Your task to perform on an android device: toggle notifications settings in the gmail app Image 0: 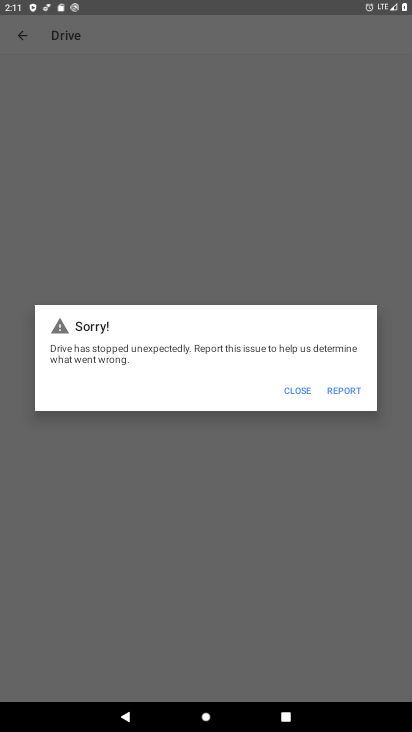
Step 0: press home button
Your task to perform on an android device: toggle notifications settings in the gmail app Image 1: 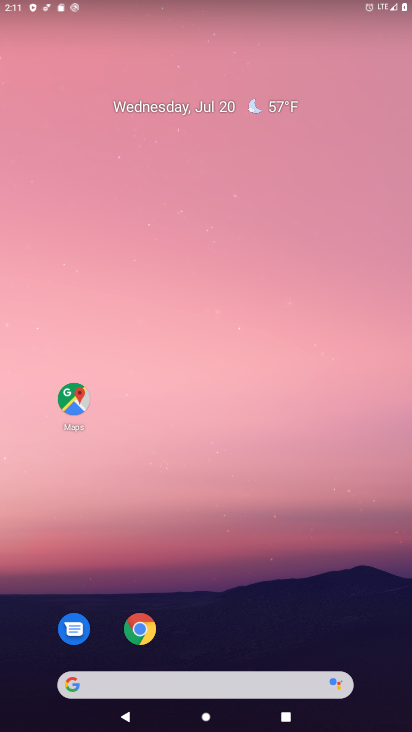
Step 1: drag from (388, 664) to (370, 76)
Your task to perform on an android device: toggle notifications settings in the gmail app Image 2: 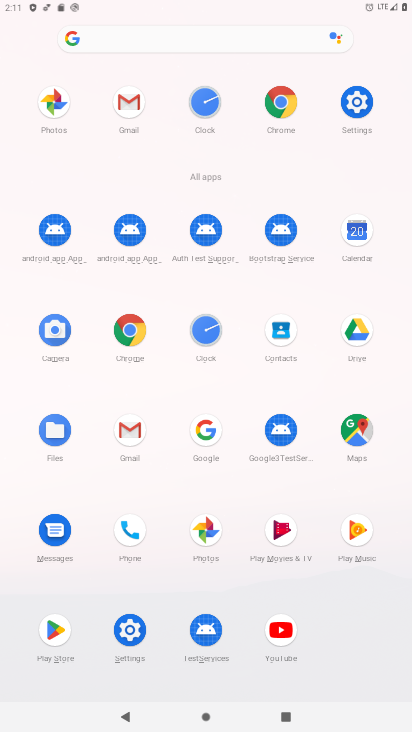
Step 2: click (126, 429)
Your task to perform on an android device: toggle notifications settings in the gmail app Image 3: 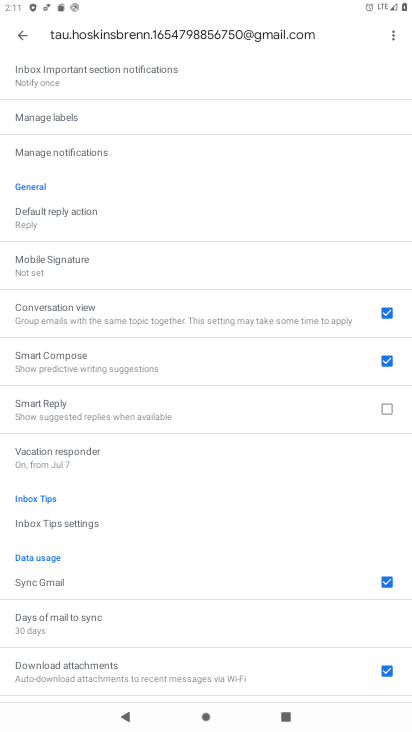
Step 3: click (81, 153)
Your task to perform on an android device: toggle notifications settings in the gmail app Image 4: 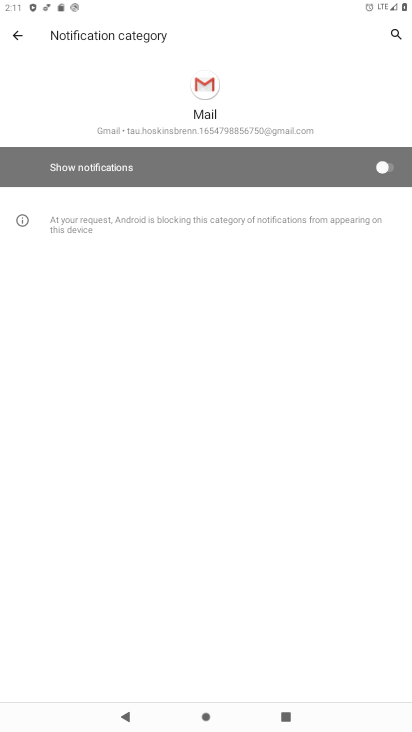
Step 4: click (389, 164)
Your task to perform on an android device: toggle notifications settings in the gmail app Image 5: 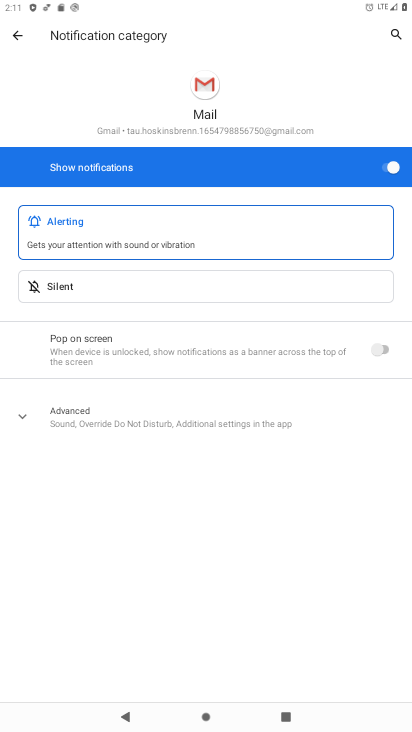
Step 5: task complete